Your task to perform on an android device: Open Google Image 0: 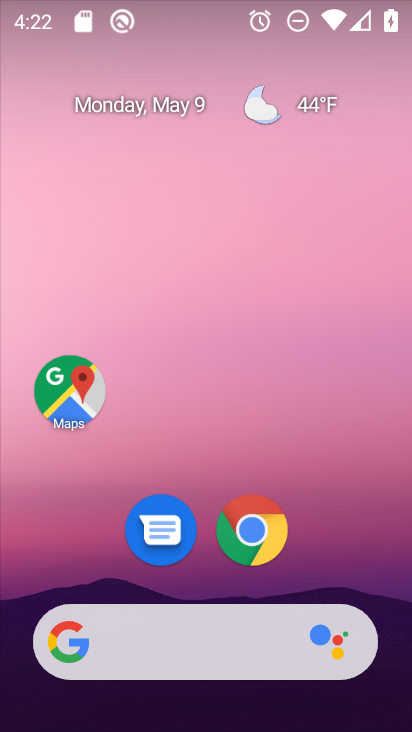
Step 0: press home button
Your task to perform on an android device: Open Google Image 1: 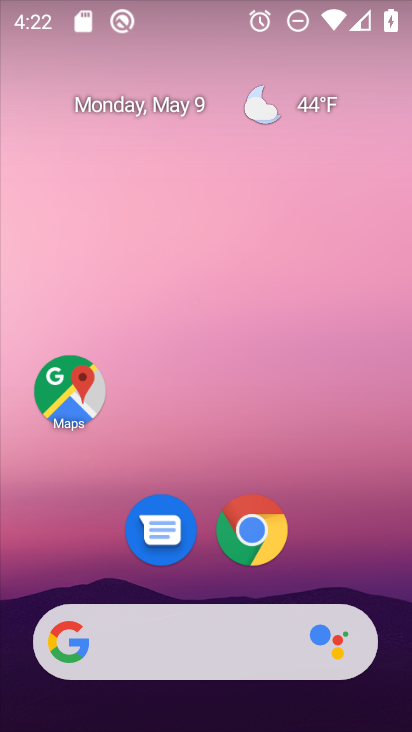
Step 1: drag from (202, 577) to (214, 98)
Your task to perform on an android device: Open Google Image 2: 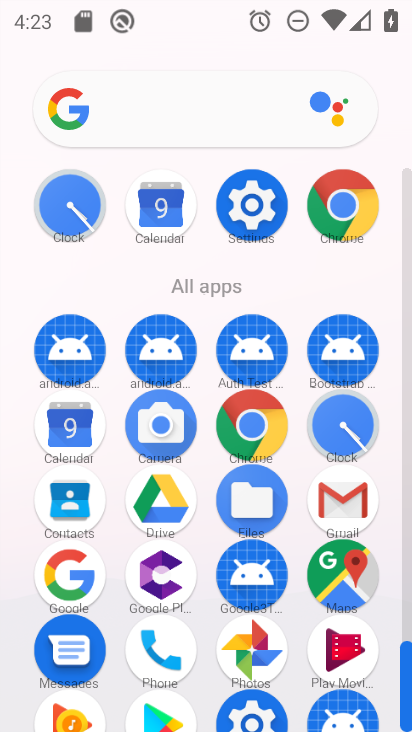
Step 2: click (72, 567)
Your task to perform on an android device: Open Google Image 3: 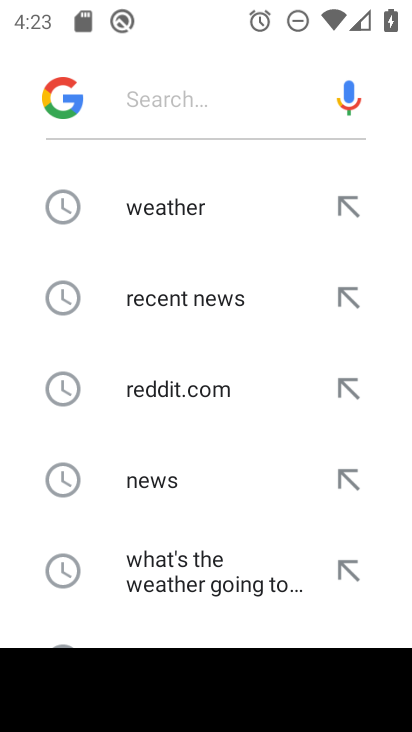
Step 3: press back button
Your task to perform on an android device: Open Google Image 4: 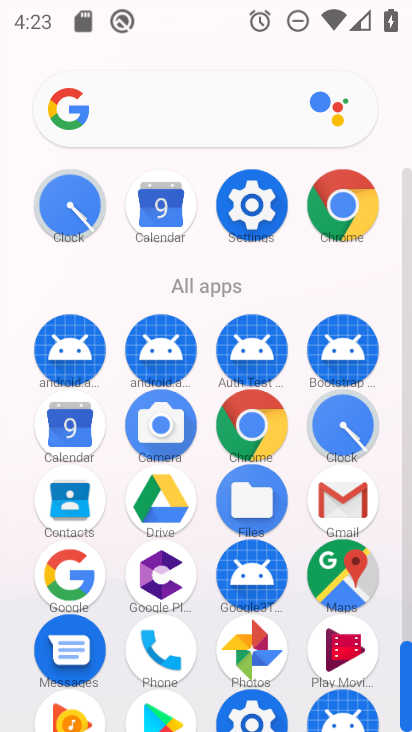
Step 4: click (67, 573)
Your task to perform on an android device: Open Google Image 5: 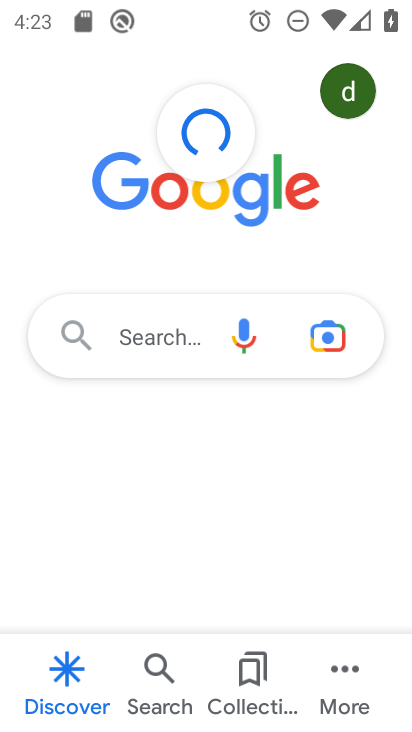
Step 5: task complete